Your task to perform on an android device: Search for hotels in Mexico city Image 0: 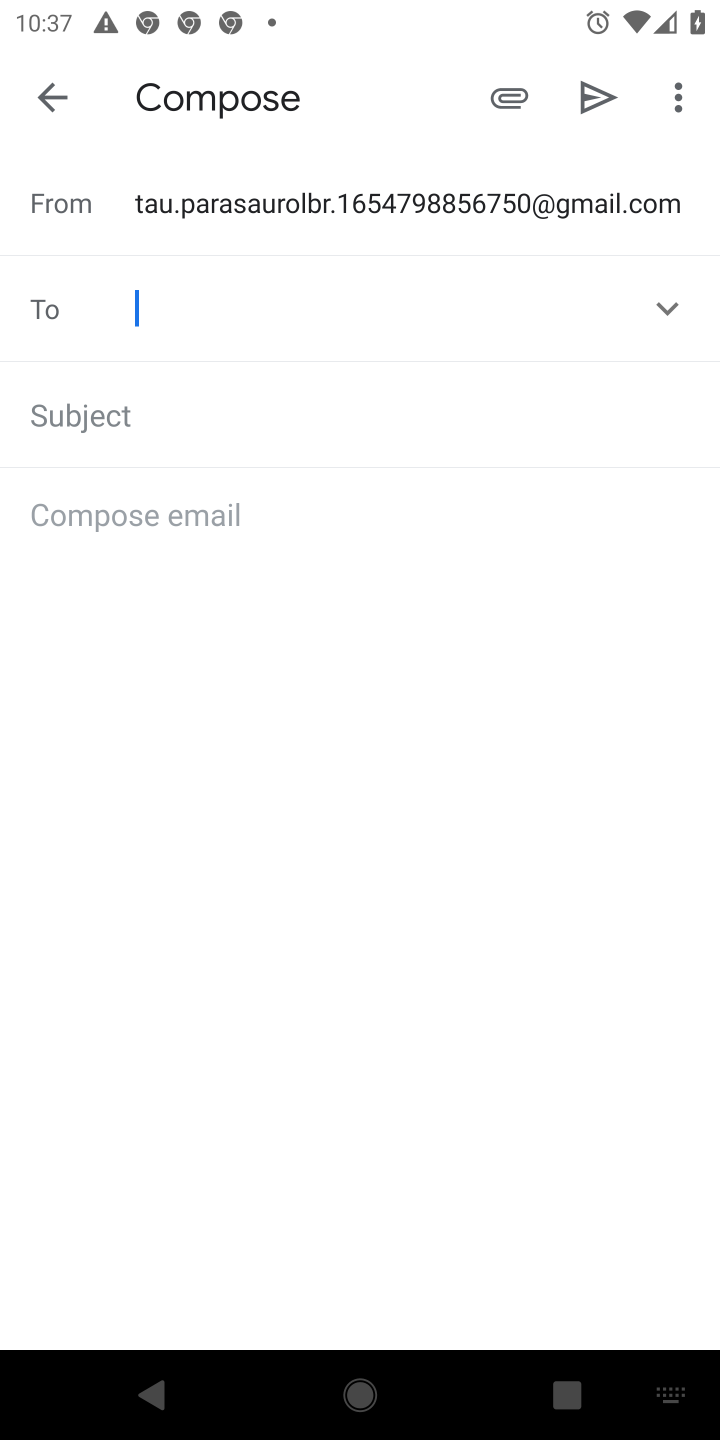
Step 0: press home button
Your task to perform on an android device: Search for hotels in Mexico city Image 1: 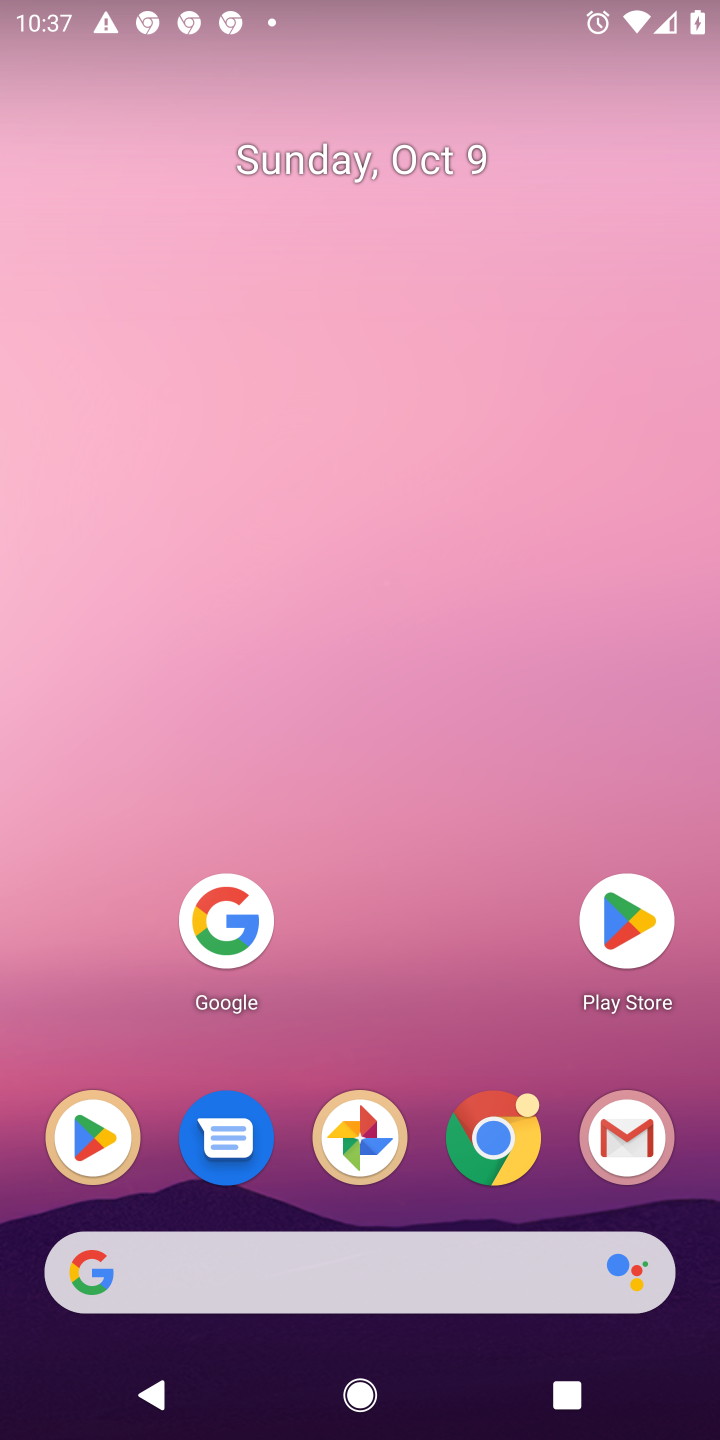
Step 1: click (227, 895)
Your task to perform on an android device: Search for hotels in Mexico city Image 2: 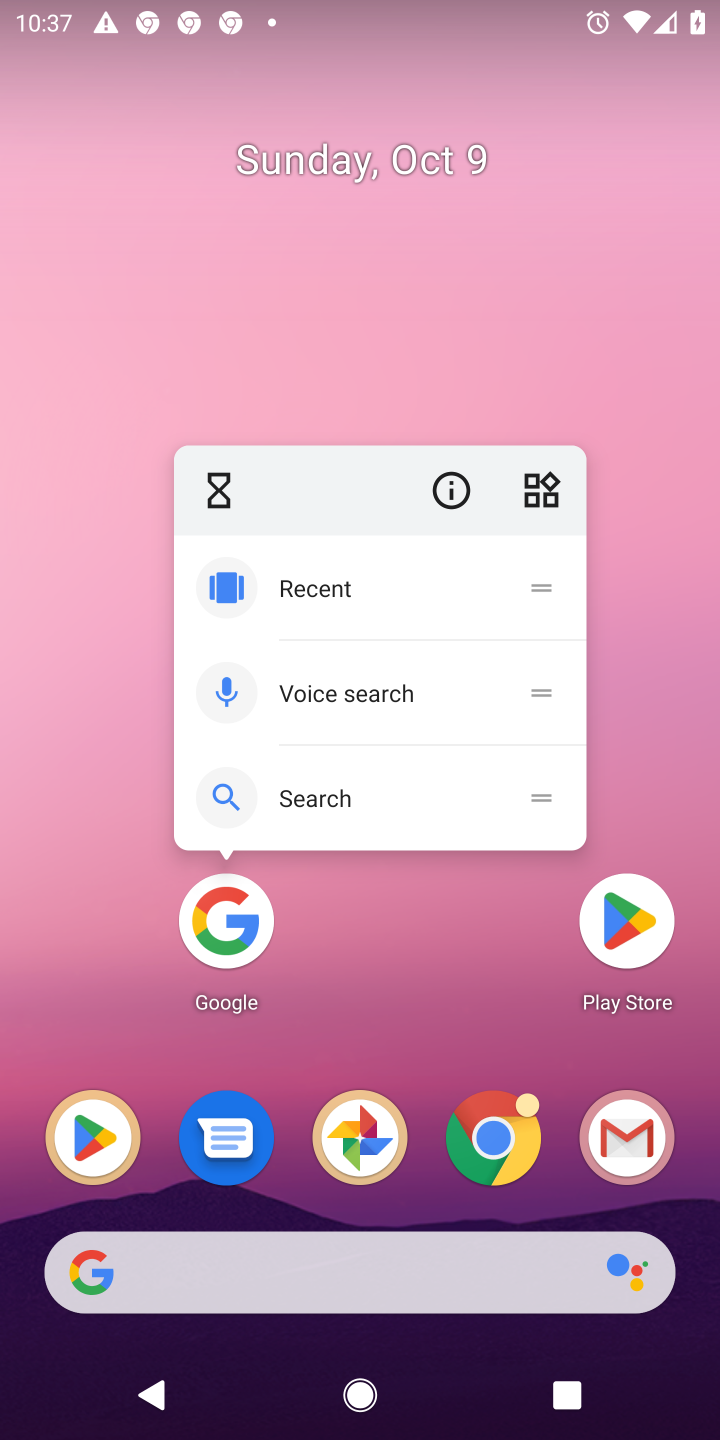
Step 2: click (227, 895)
Your task to perform on an android device: Search for hotels in Mexico city Image 3: 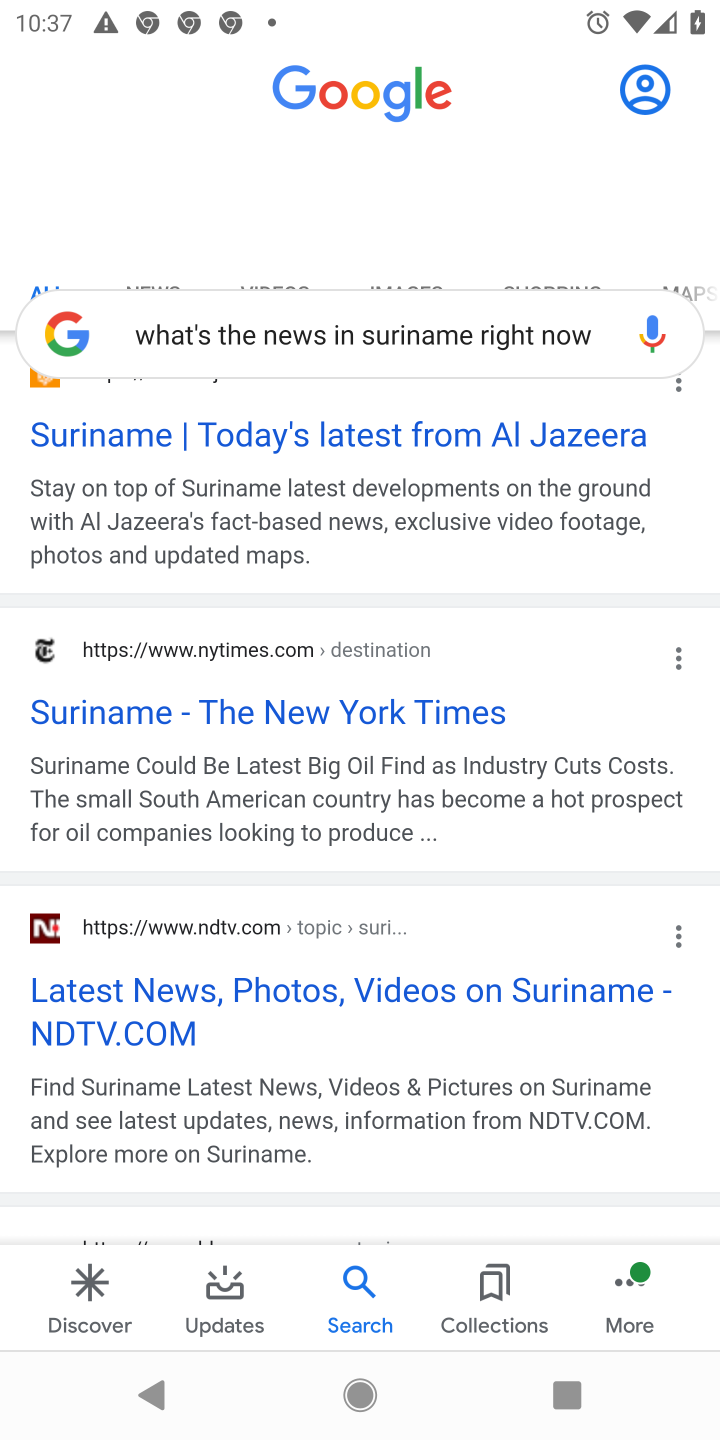
Step 3: click (387, 336)
Your task to perform on an android device: Search for hotels in Mexico city Image 4: 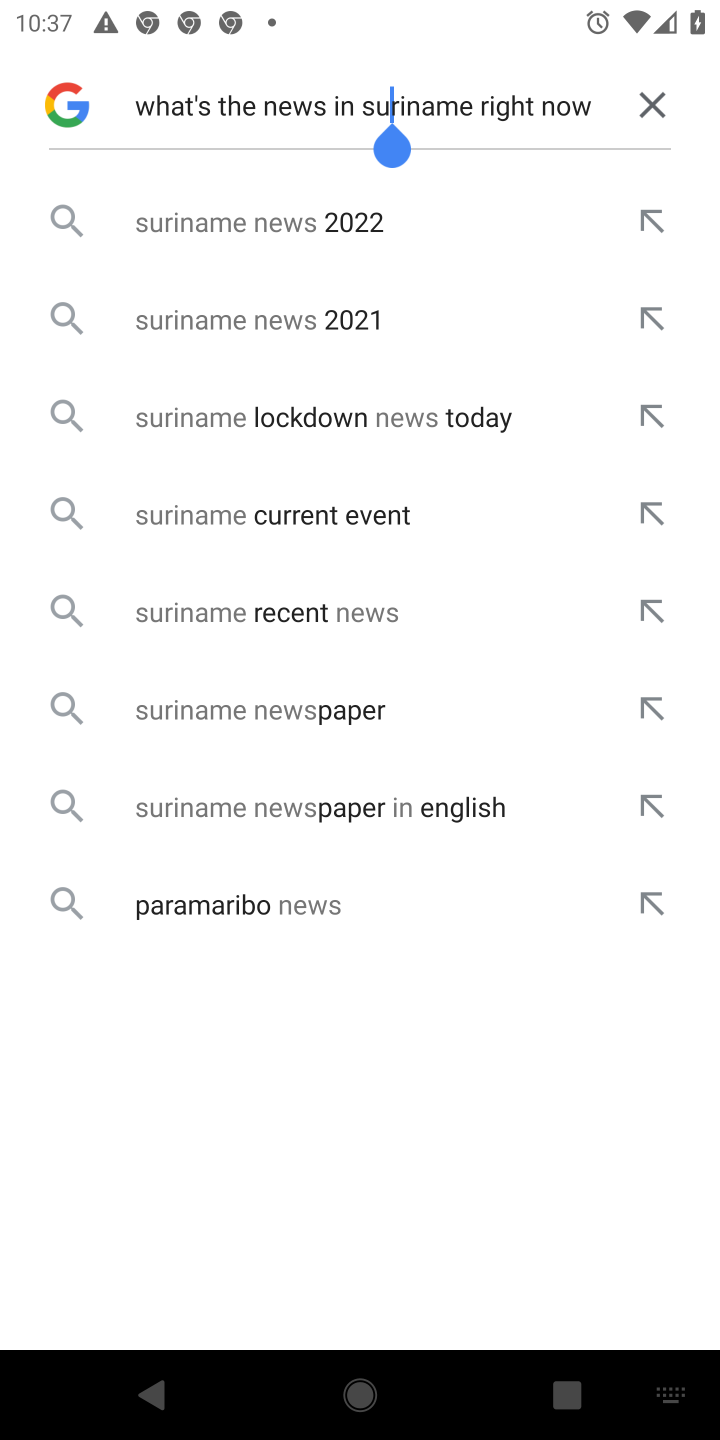
Step 4: click (651, 106)
Your task to perform on an android device: Search for hotels in Mexico city Image 5: 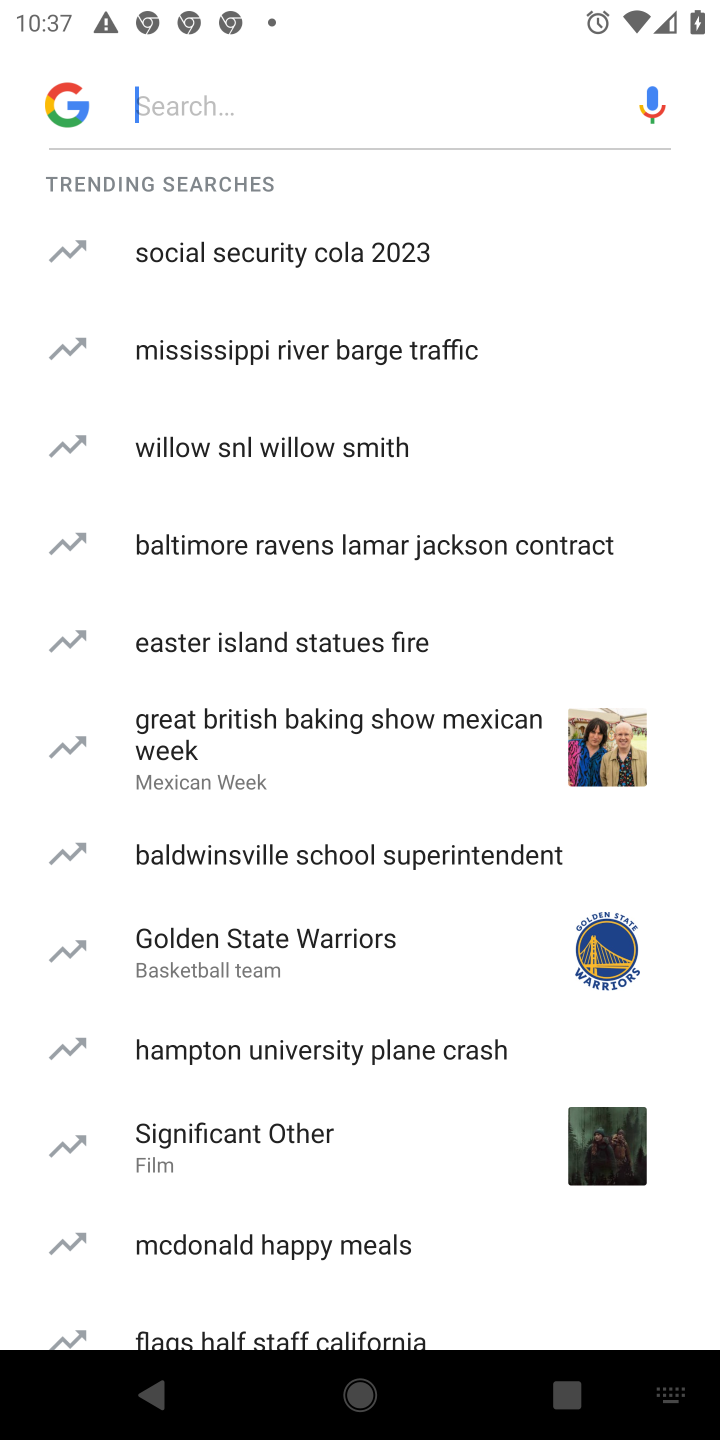
Step 5: drag from (130, 1437) to (447, 1420)
Your task to perform on an android device: Search for hotels in Mexico city Image 6: 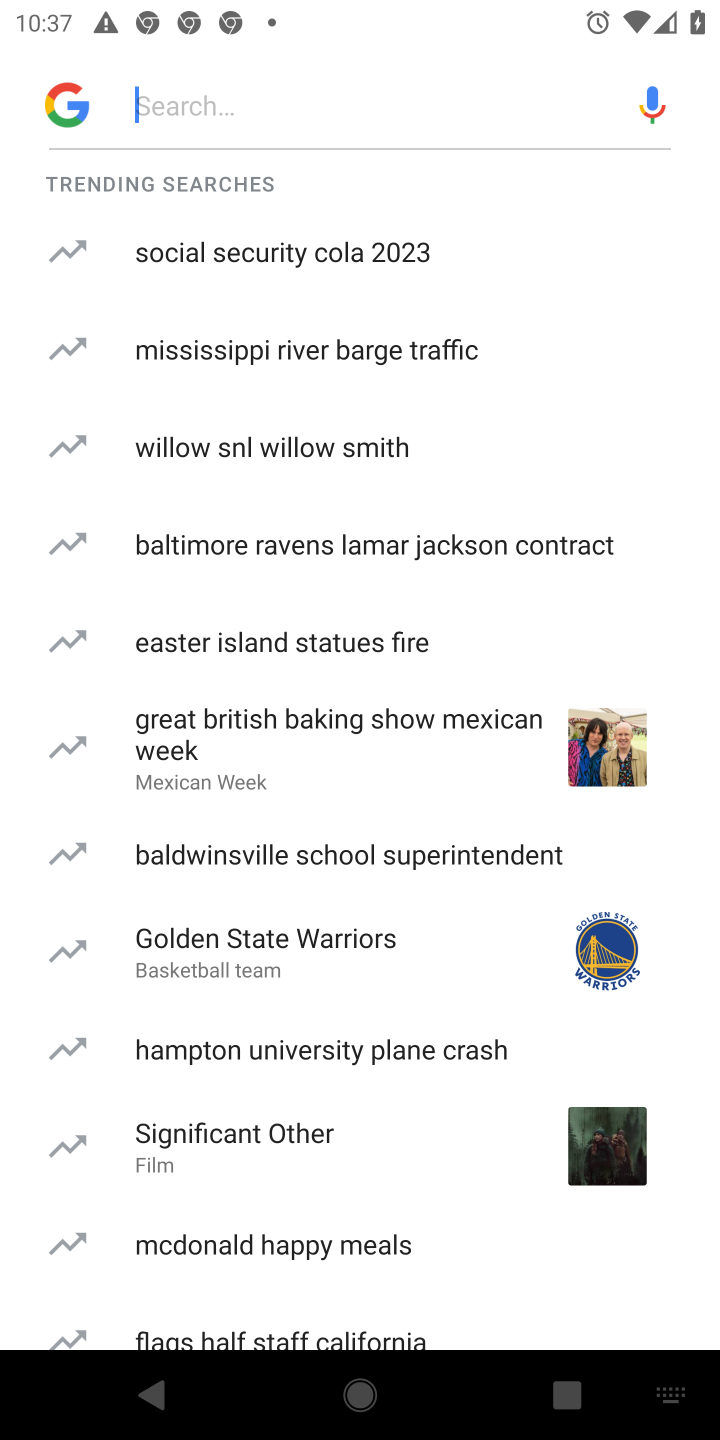
Step 6: click (402, 71)
Your task to perform on an android device: Search for hotels in Mexico city Image 7: 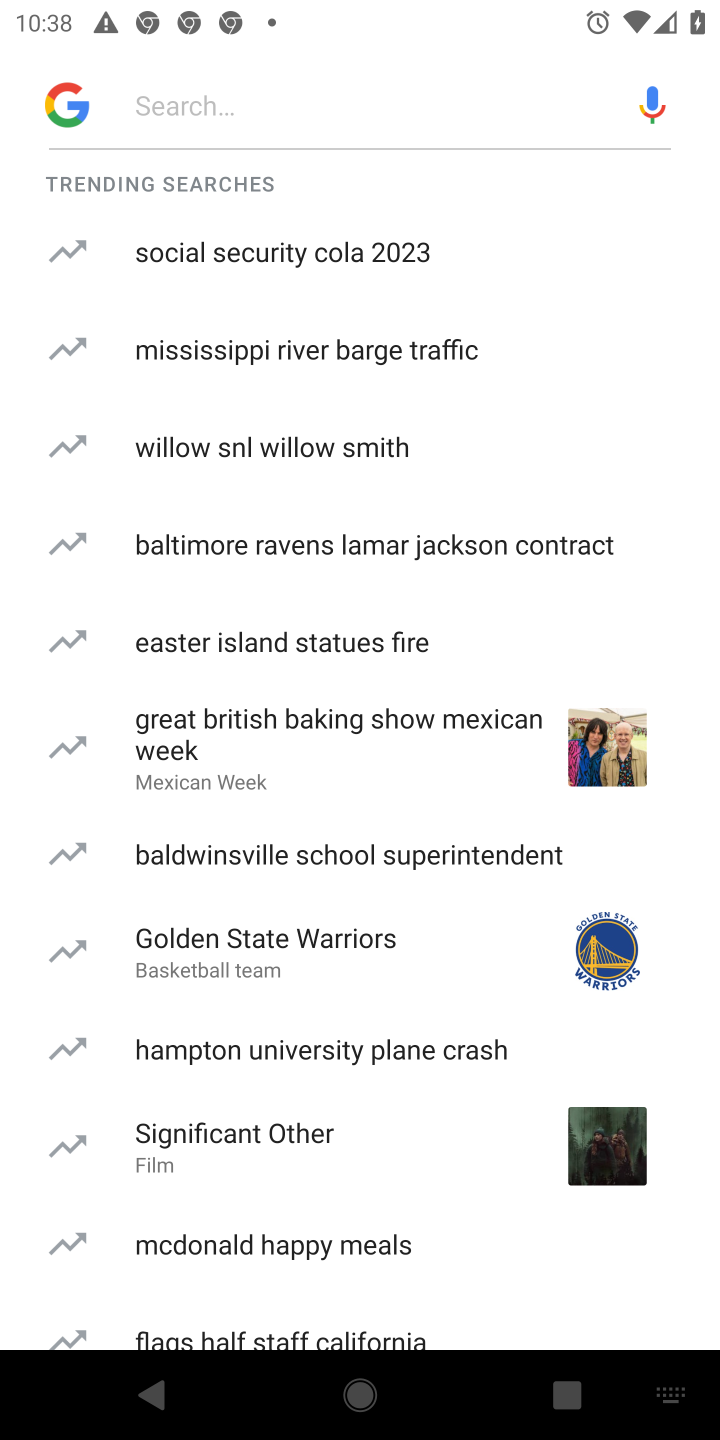
Step 7: type "Search for hotels in Mexico city "
Your task to perform on an android device: Search for hotels in Mexico city Image 8: 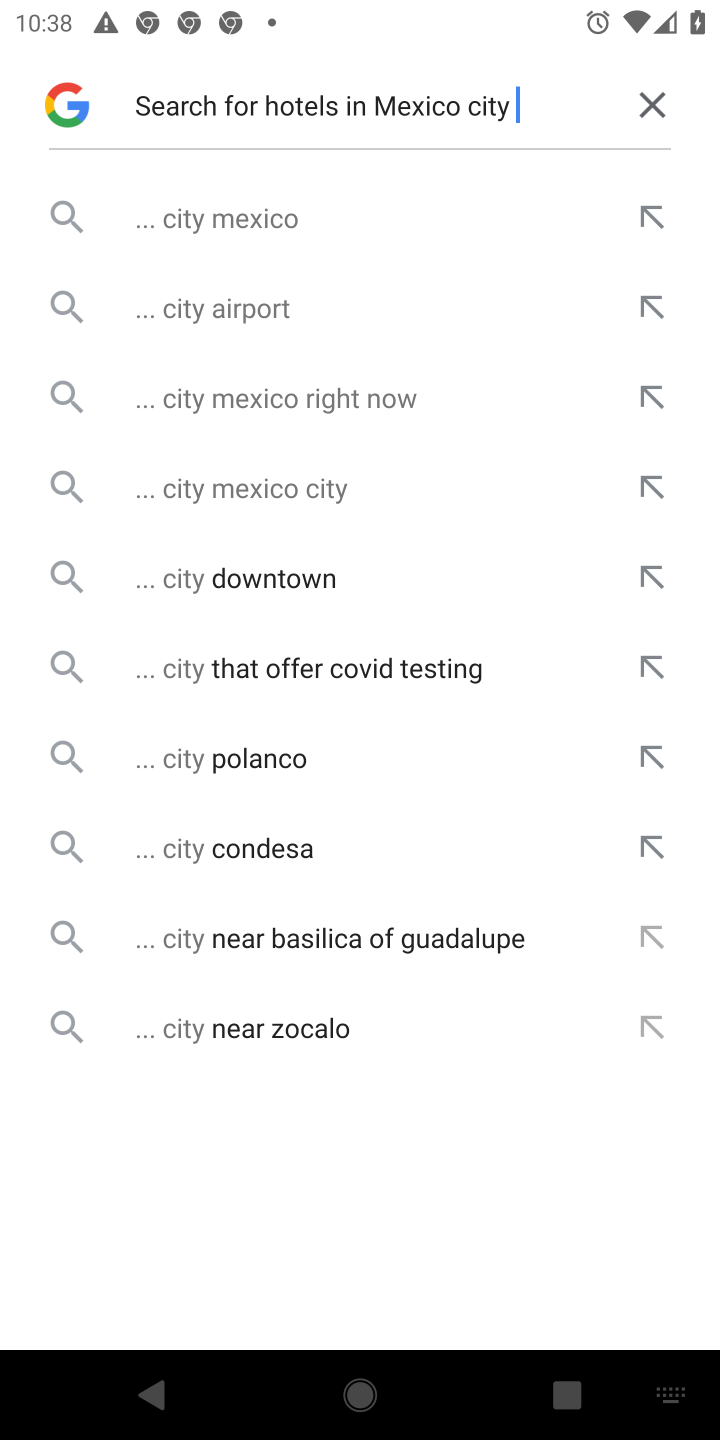
Step 8: click (228, 202)
Your task to perform on an android device: Search for hotels in Mexico city Image 9: 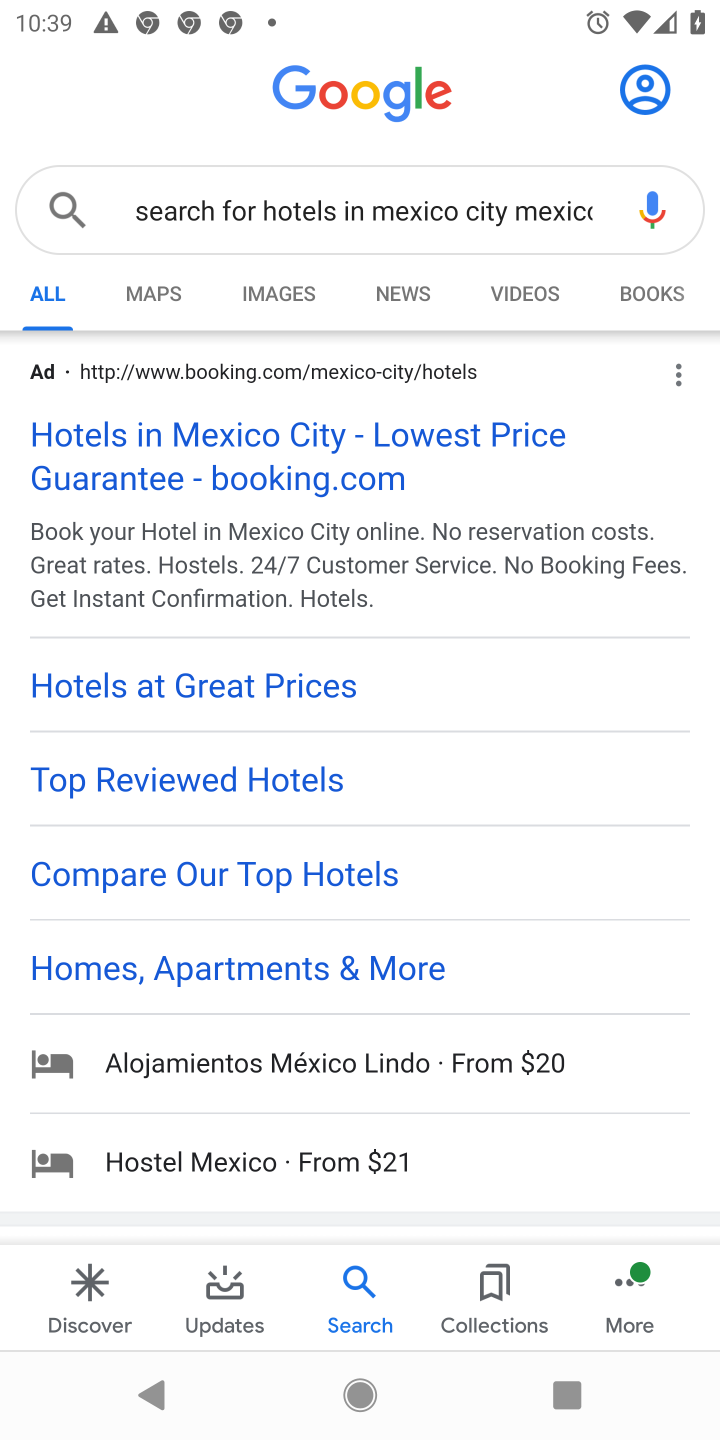
Step 9: click (313, 429)
Your task to perform on an android device: Search for hotels in Mexico city Image 10: 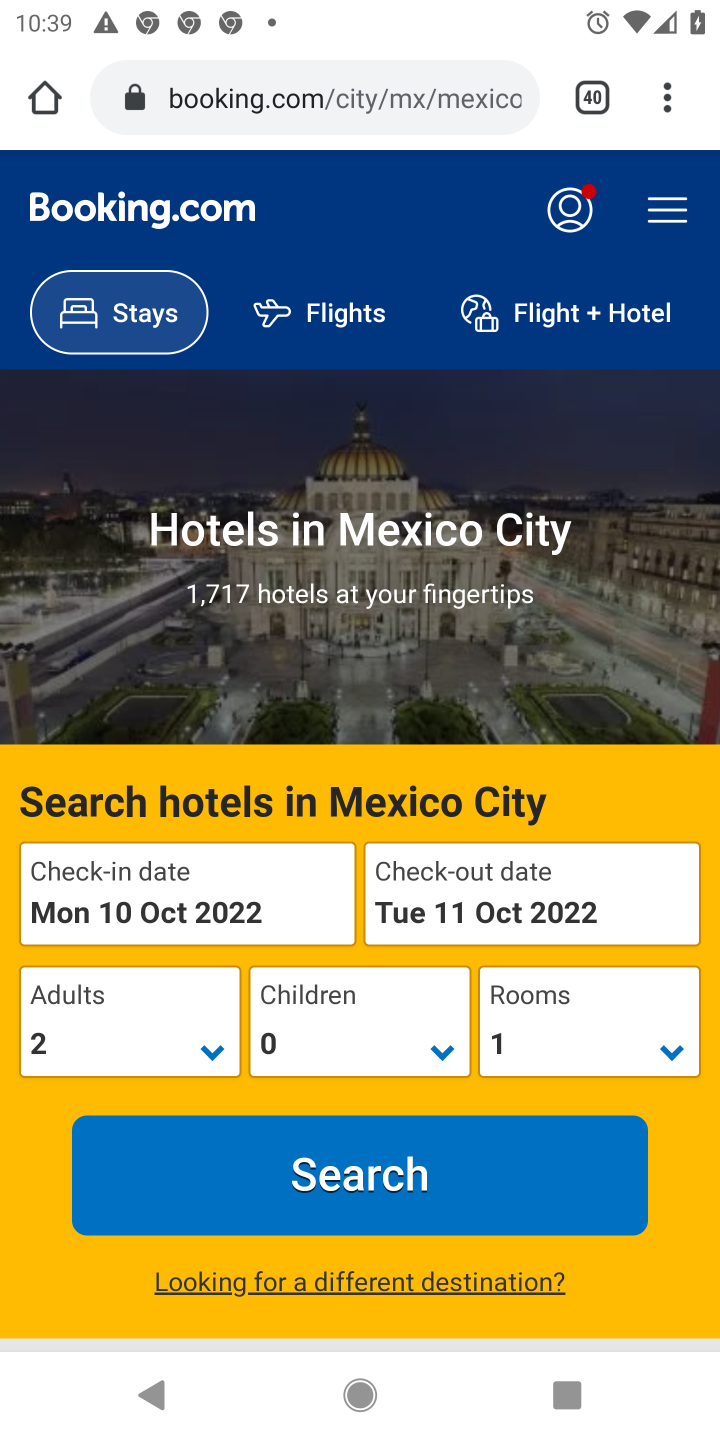
Step 10: click (245, 1165)
Your task to perform on an android device: Search for hotels in Mexico city Image 11: 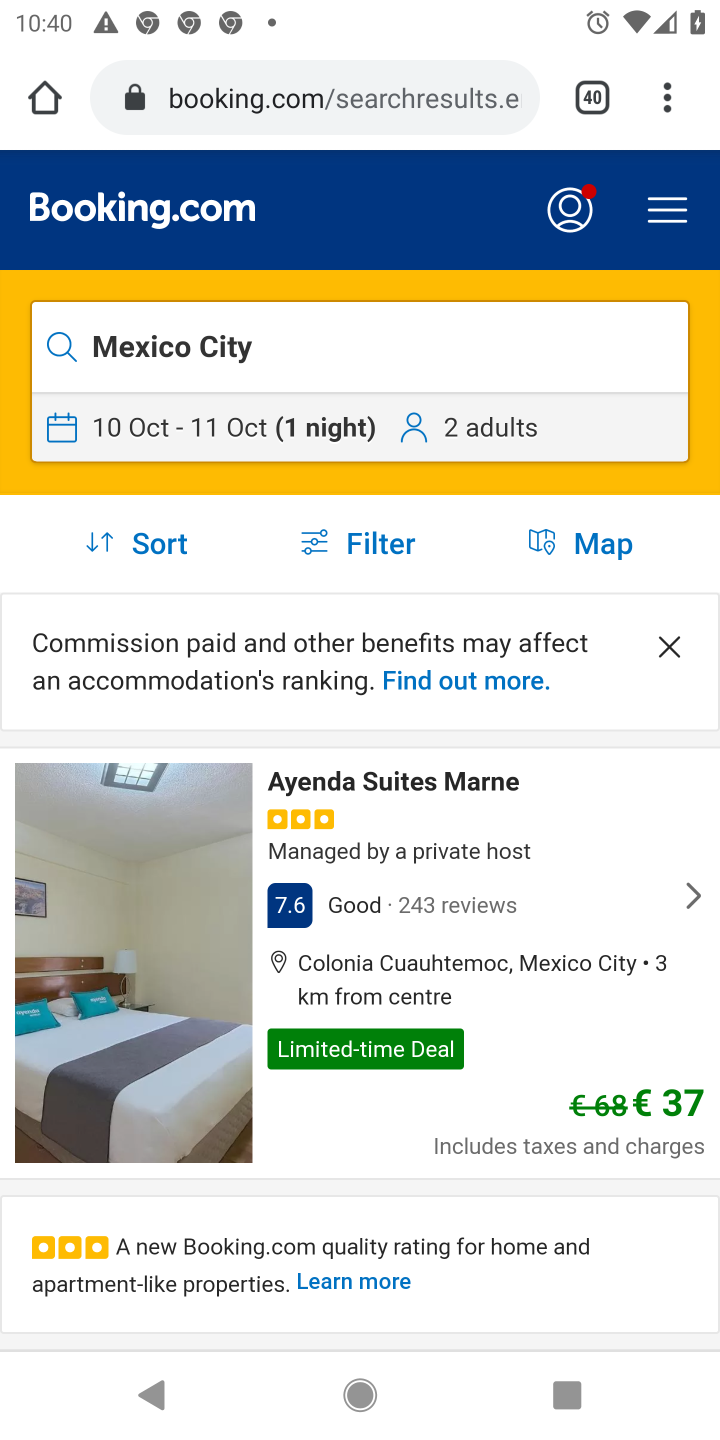
Step 11: task complete